Your task to perform on an android device: What's the weather? Image 0: 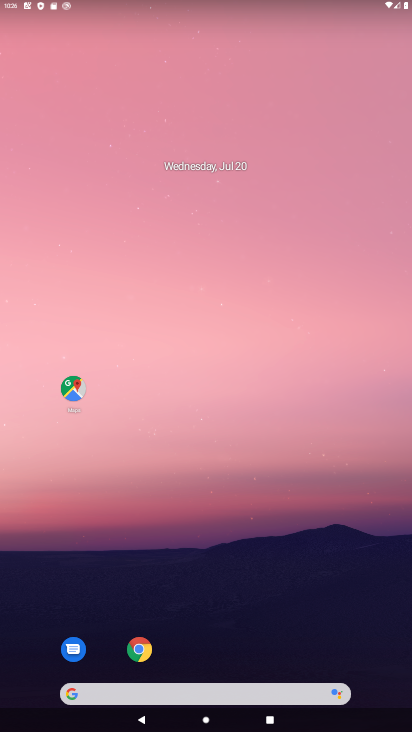
Step 0: drag from (236, 640) to (311, 105)
Your task to perform on an android device: What's the weather? Image 1: 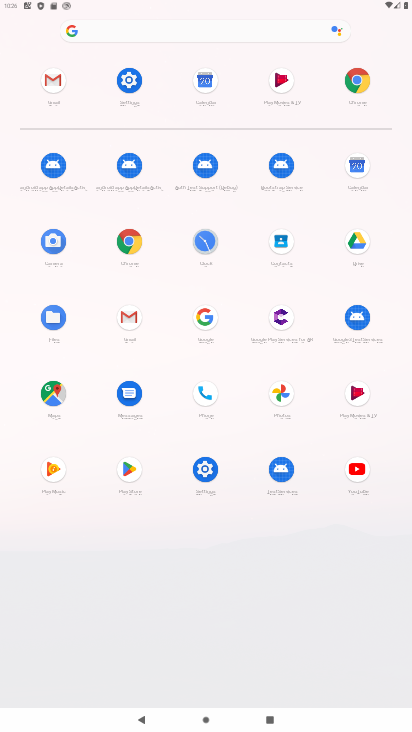
Step 1: click (150, 30)
Your task to perform on an android device: What's the weather? Image 2: 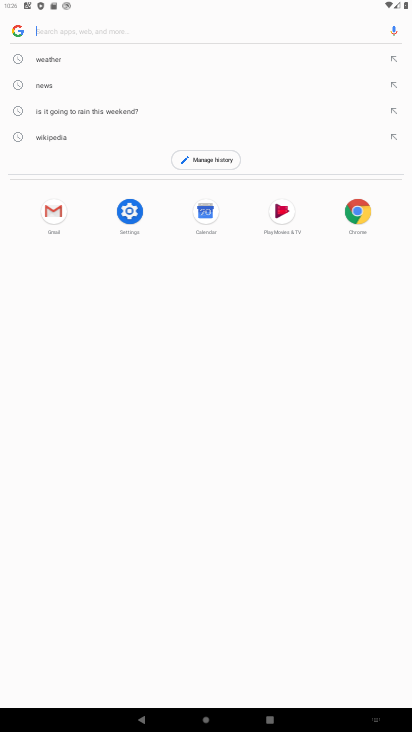
Step 2: click (145, 59)
Your task to perform on an android device: What's the weather? Image 3: 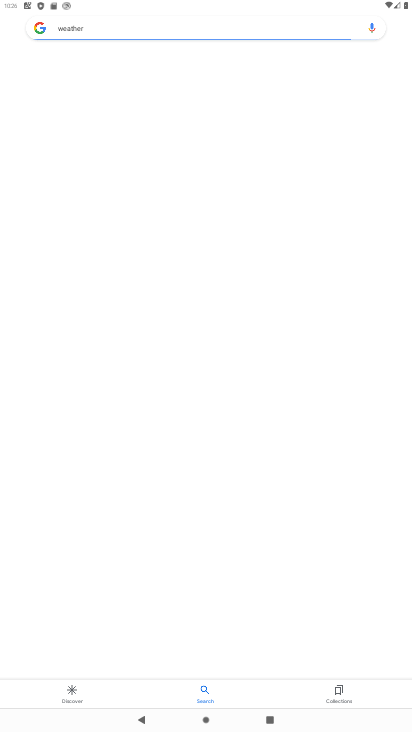
Step 3: task complete